Your task to perform on an android device: Open the stopwatch Image 0: 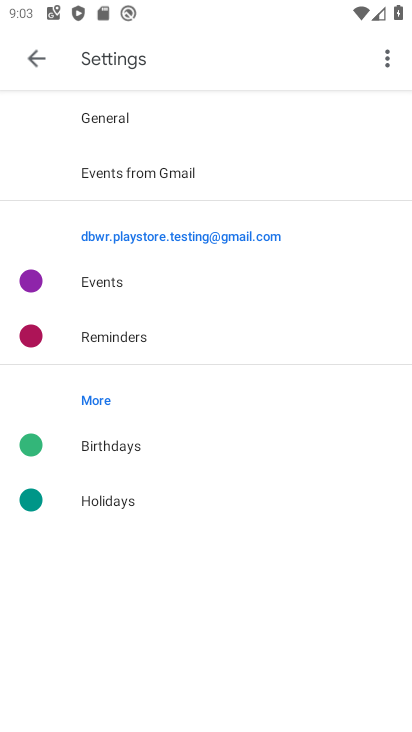
Step 0: press home button
Your task to perform on an android device: Open the stopwatch Image 1: 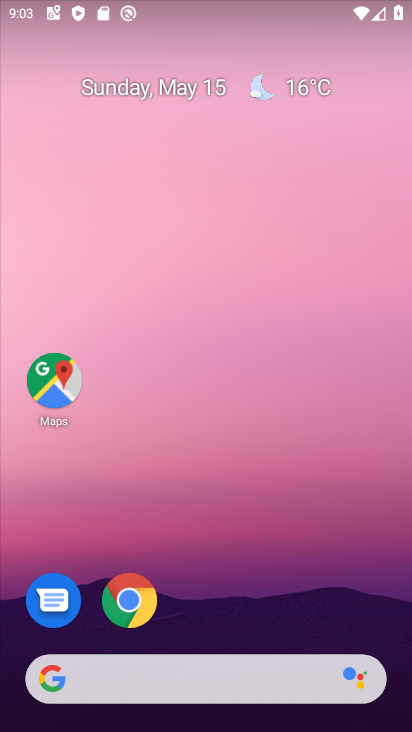
Step 1: drag from (251, 586) to (298, 71)
Your task to perform on an android device: Open the stopwatch Image 2: 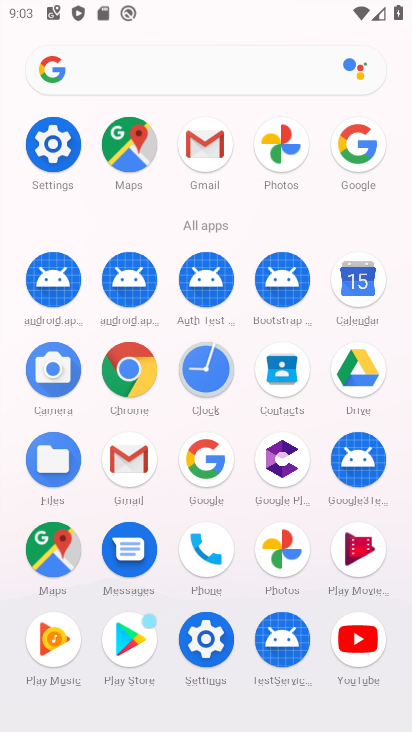
Step 2: click (211, 365)
Your task to perform on an android device: Open the stopwatch Image 3: 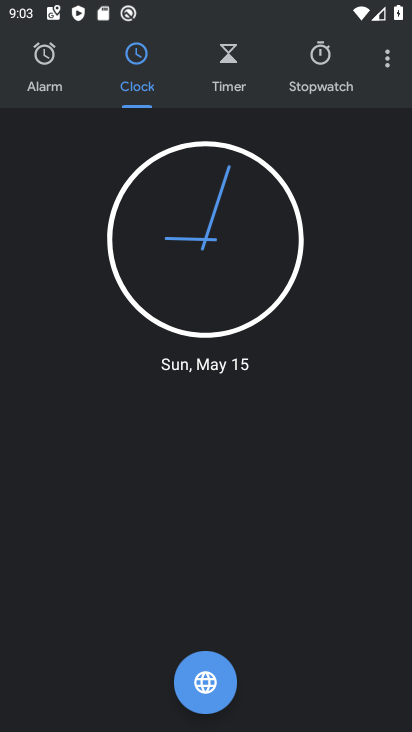
Step 3: click (314, 68)
Your task to perform on an android device: Open the stopwatch Image 4: 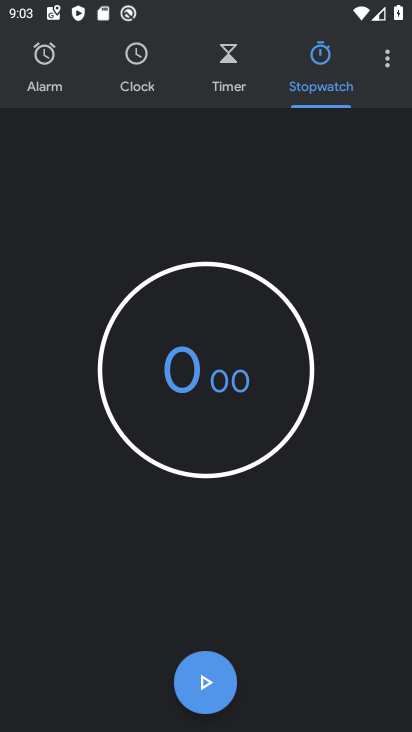
Step 4: click (215, 681)
Your task to perform on an android device: Open the stopwatch Image 5: 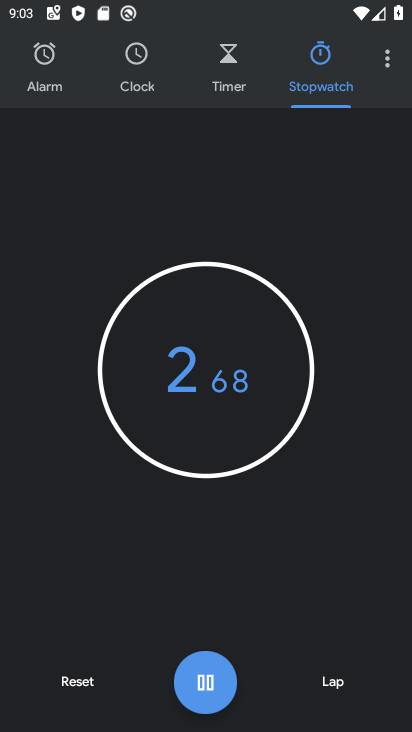
Step 5: click (215, 682)
Your task to perform on an android device: Open the stopwatch Image 6: 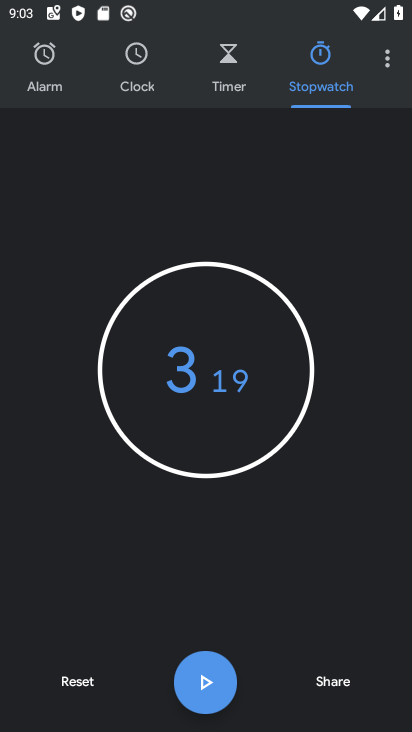
Step 6: task complete